Your task to perform on an android device: turn on showing notifications on the lock screen Image 0: 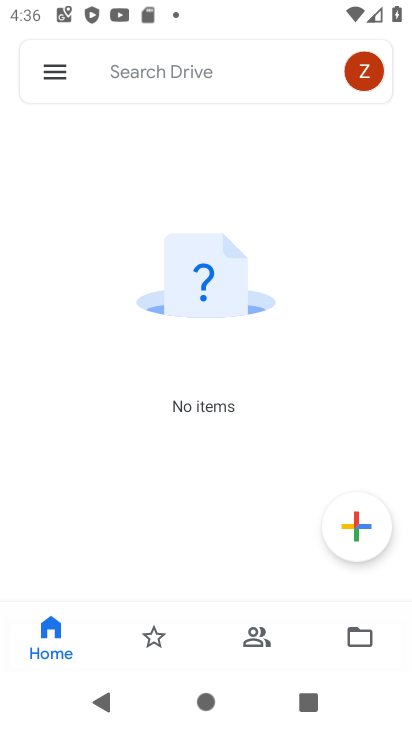
Step 0: press home button
Your task to perform on an android device: turn on showing notifications on the lock screen Image 1: 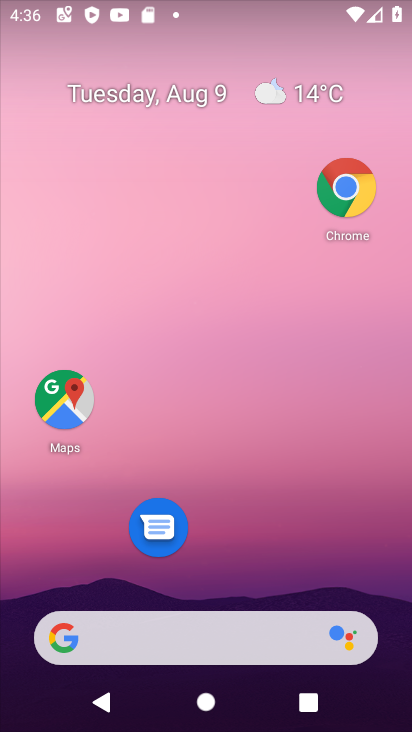
Step 1: drag from (234, 564) to (337, 7)
Your task to perform on an android device: turn on showing notifications on the lock screen Image 2: 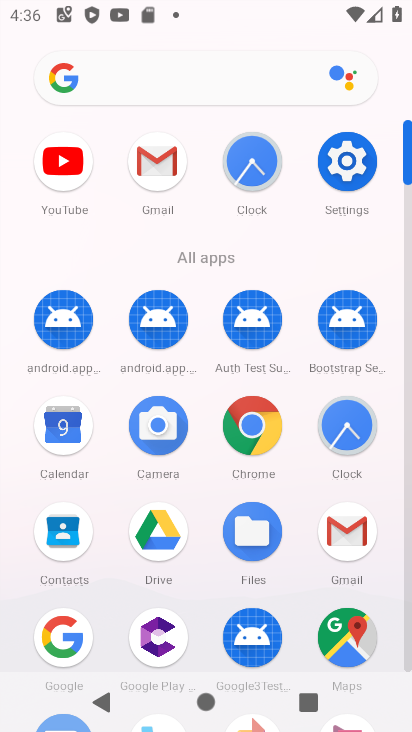
Step 2: click (352, 184)
Your task to perform on an android device: turn on showing notifications on the lock screen Image 3: 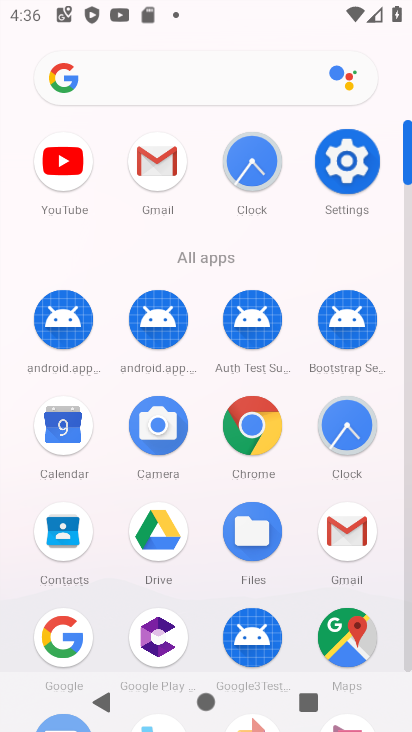
Step 3: click (352, 184)
Your task to perform on an android device: turn on showing notifications on the lock screen Image 4: 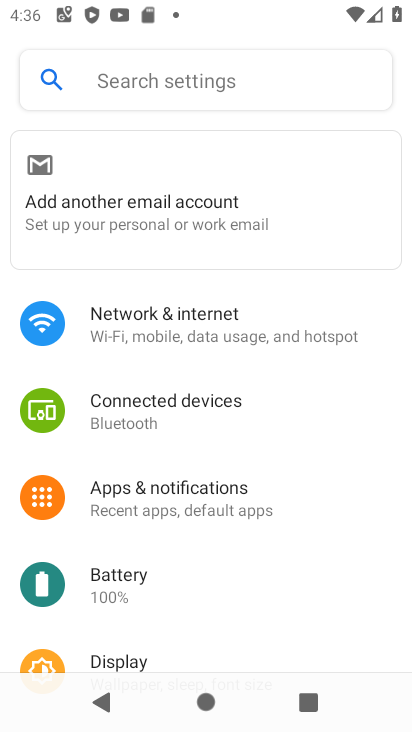
Step 4: click (128, 514)
Your task to perform on an android device: turn on showing notifications on the lock screen Image 5: 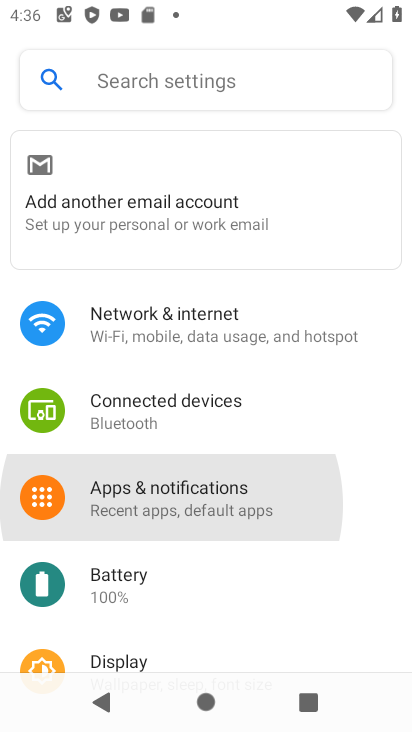
Step 5: click (128, 514)
Your task to perform on an android device: turn on showing notifications on the lock screen Image 6: 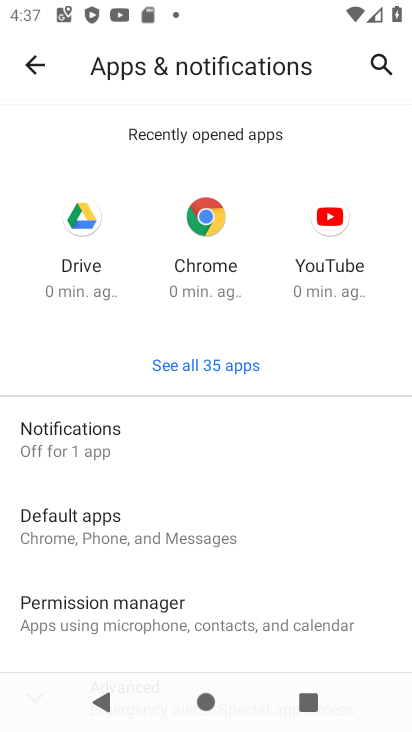
Step 6: click (144, 438)
Your task to perform on an android device: turn on showing notifications on the lock screen Image 7: 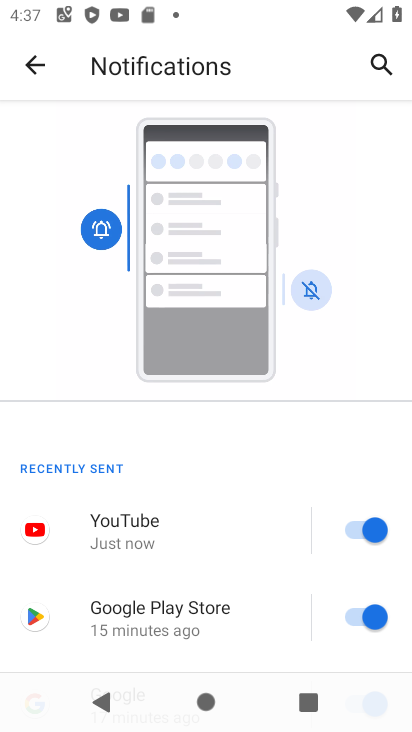
Step 7: drag from (151, 618) to (287, 16)
Your task to perform on an android device: turn on showing notifications on the lock screen Image 8: 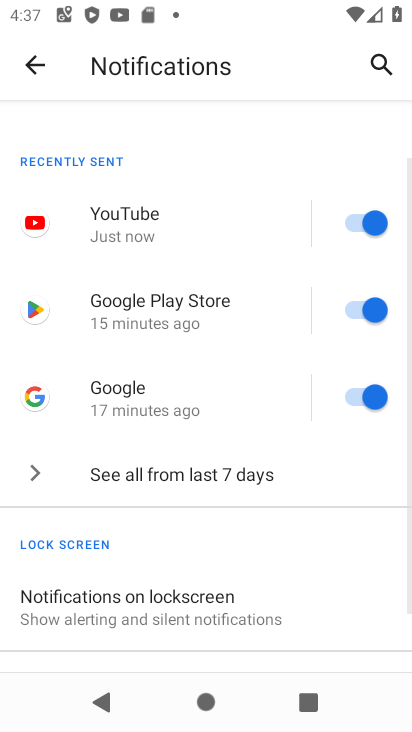
Step 8: click (134, 617)
Your task to perform on an android device: turn on showing notifications on the lock screen Image 9: 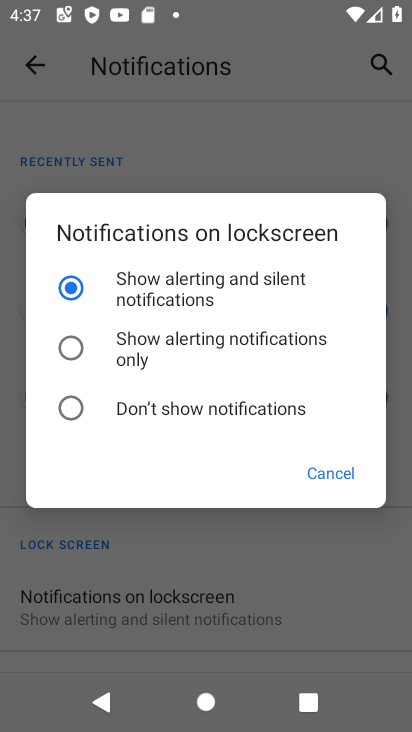
Step 9: task complete